Your task to perform on an android device: turn on bluetooth scan Image 0: 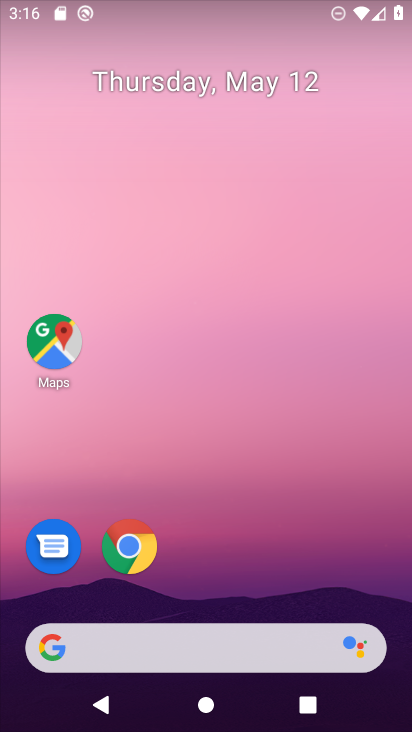
Step 0: drag from (252, 582) to (232, 306)
Your task to perform on an android device: turn on bluetooth scan Image 1: 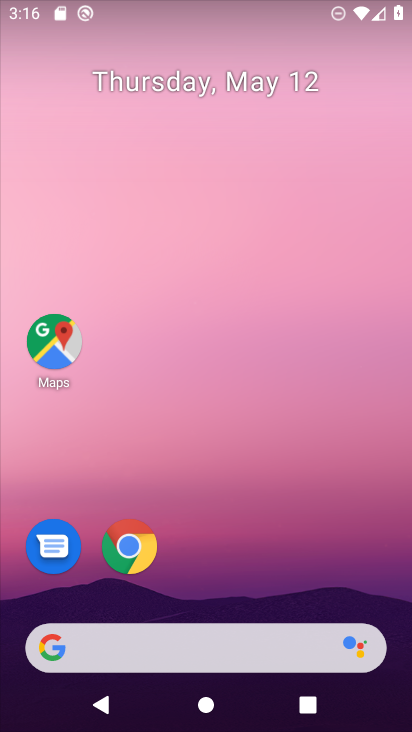
Step 1: drag from (203, 587) to (258, 214)
Your task to perform on an android device: turn on bluetooth scan Image 2: 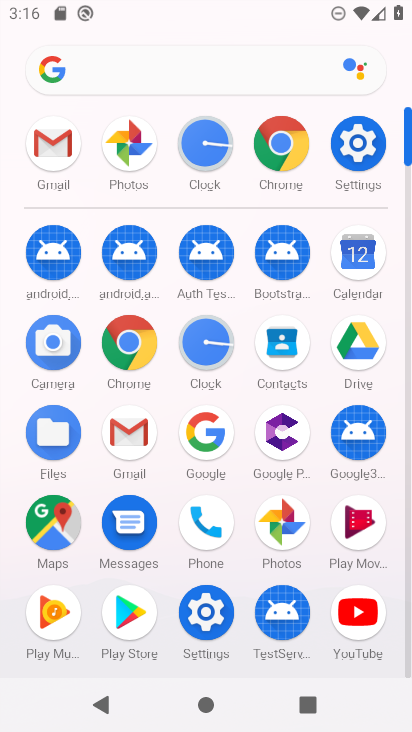
Step 2: click (357, 141)
Your task to perform on an android device: turn on bluetooth scan Image 3: 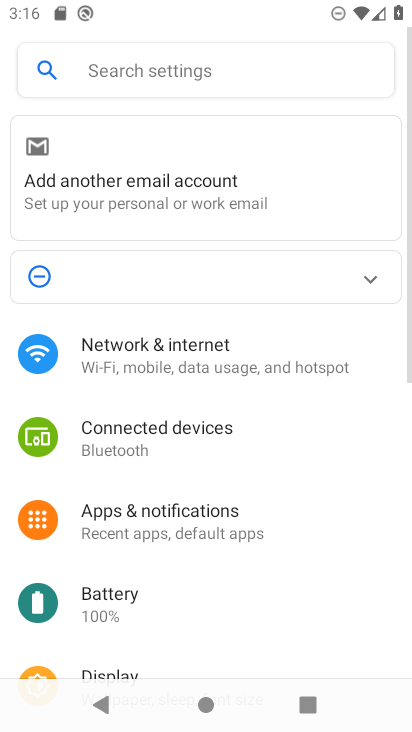
Step 3: click (192, 65)
Your task to perform on an android device: turn on bluetooth scan Image 4: 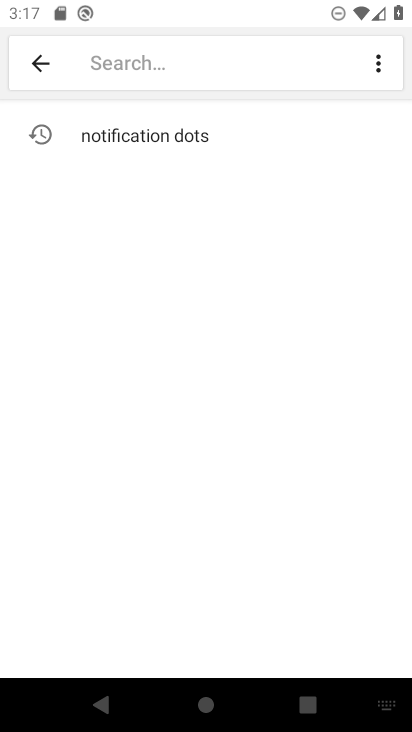
Step 4: click (148, 54)
Your task to perform on an android device: turn on bluetooth scan Image 5: 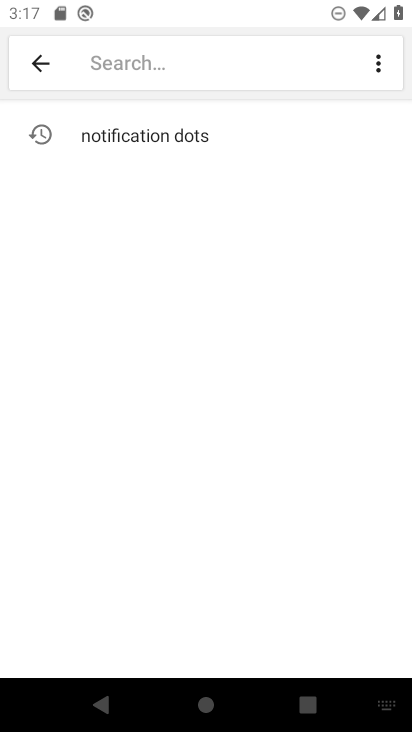
Step 5: type "bluetooth scan"
Your task to perform on an android device: turn on bluetooth scan Image 6: 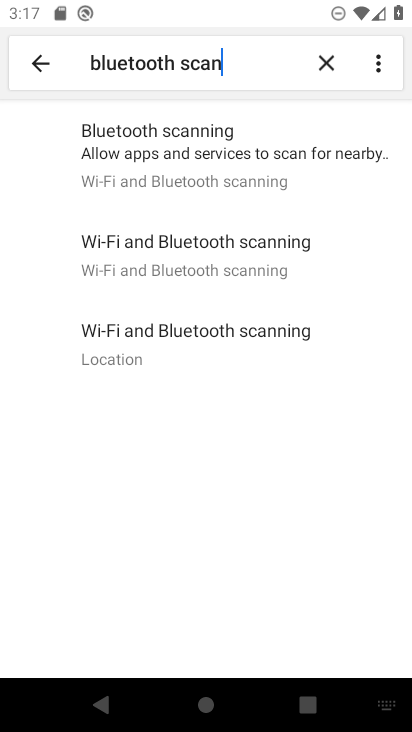
Step 6: click (223, 155)
Your task to perform on an android device: turn on bluetooth scan Image 7: 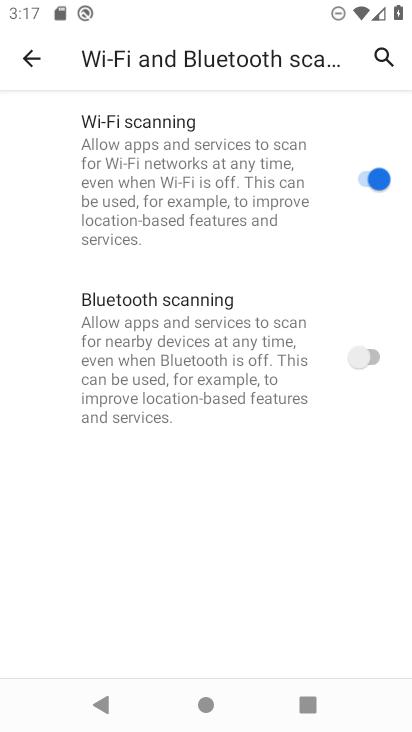
Step 7: click (366, 365)
Your task to perform on an android device: turn on bluetooth scan Image 8: 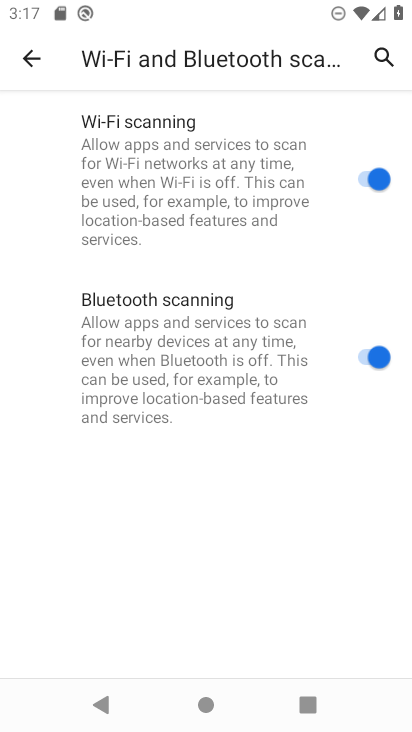
Step 8: task complete